Your task to perform on an android device: change your default location settings in chrome Image 0: 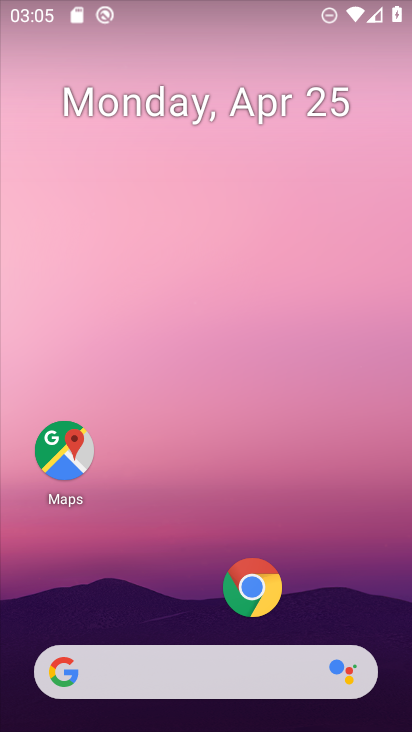
Step 0: drag from (192, 265) to (192, 27)
Your task to perform on an android device: change your default location settings in chrome Image 1: 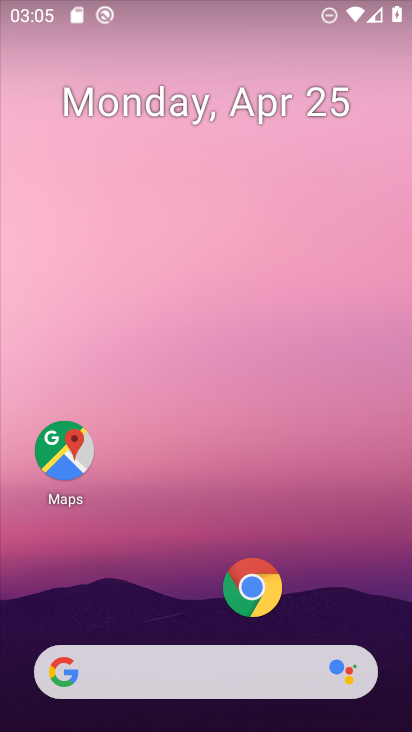
Step 1: click (246, 578)
Your task to perform on an android device: change your default location settings in chrome Image 2: 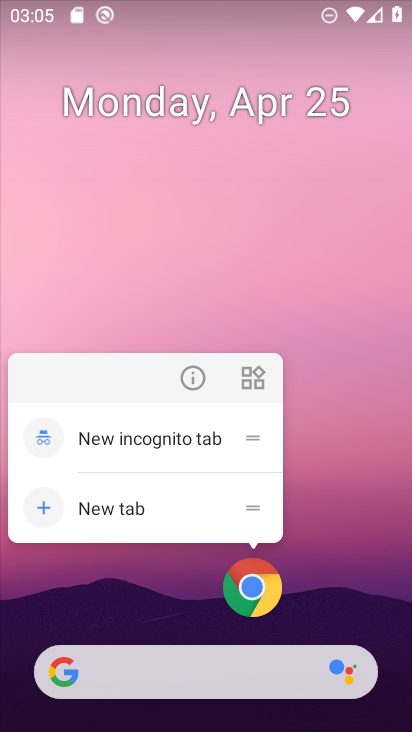
Step 2: drag from (300, 620) to (307, 57)
Your task to perform on an android device: change your default location settings in chrome Image 3: 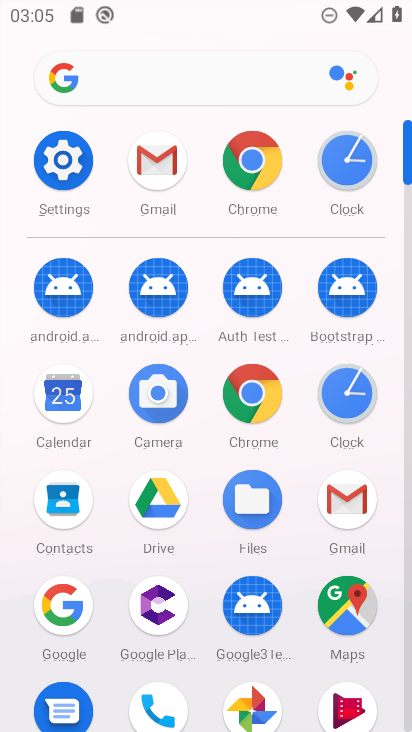
Step 3: click (247, 391)
Your task to perform on an android device: change your default location settings in chrome Image 4: 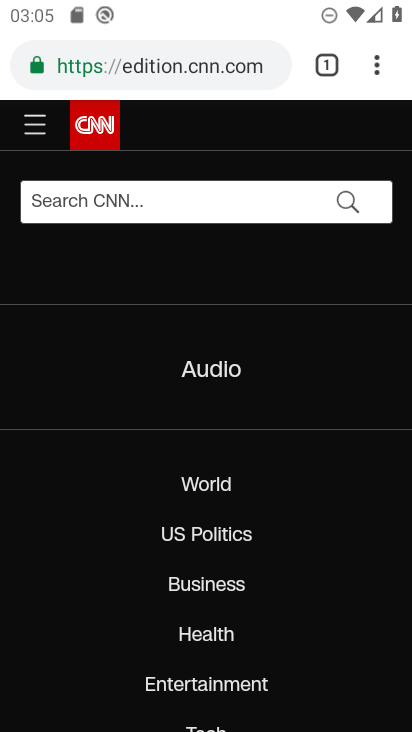
Step 4: click (378, 63)
Your task to perform on an android device: change your default location settings in chrome Image 5: 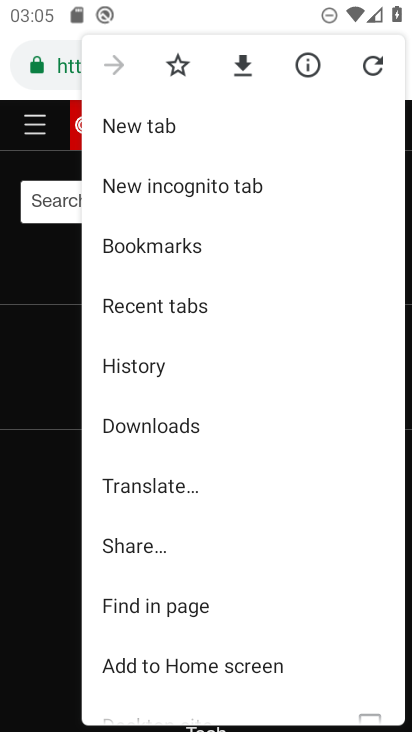
Step 5: drag from (226, 626) to (241, 92)
Your task to perform on an android device: change your default location settings in chrome Image 6: 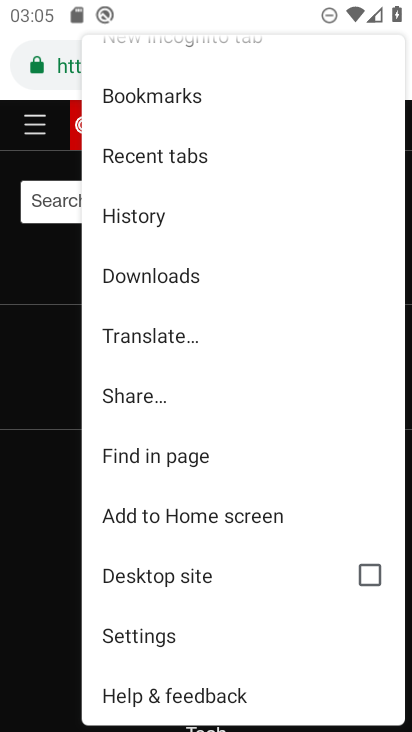
Step 6: click (188, 626)
Your task to perform on an android device: change your default location settings in chrome Image 7: 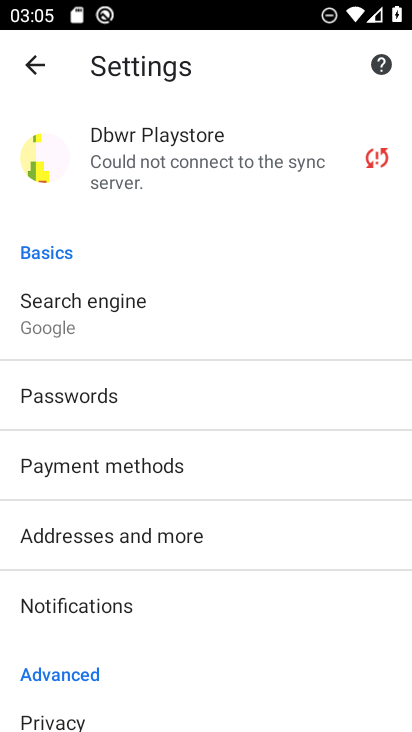
Step 7: drag from (197, 645) to (207, 129)
Your task to perform on an android device: change your default location settings in chrome Image 8: 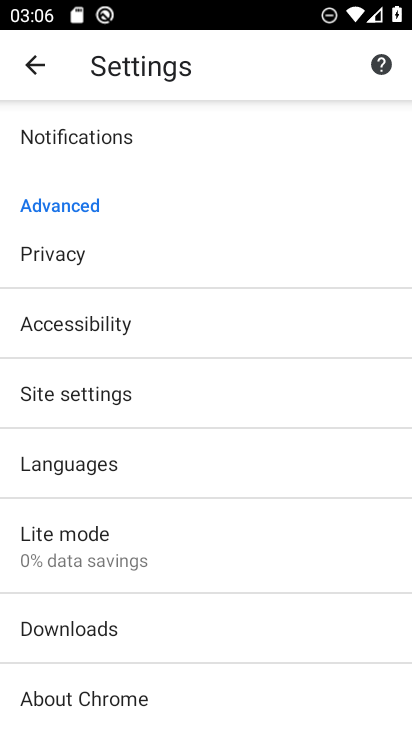
Step 8: click (162, 406)
Your task to perform on an android device: change your default location settings in chrome Image 9: 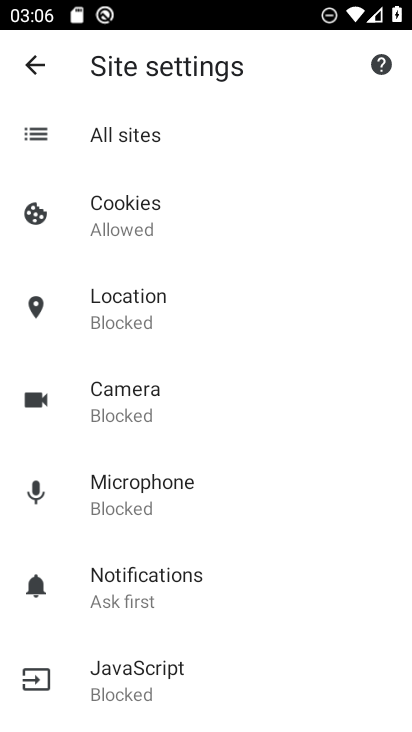
Step 9: click (172, 303)
Your task to perform on an android device: change your default location settings in chrome Image 10: 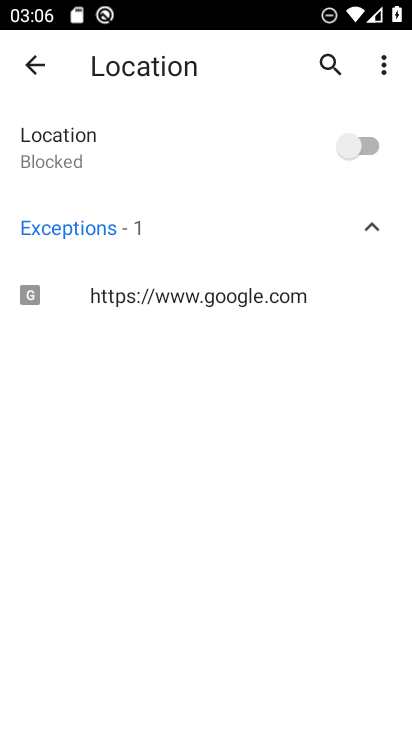
Step 10: click (353, 144)
Your task to perform on an android device: change your default location settings in chrome Image 11: 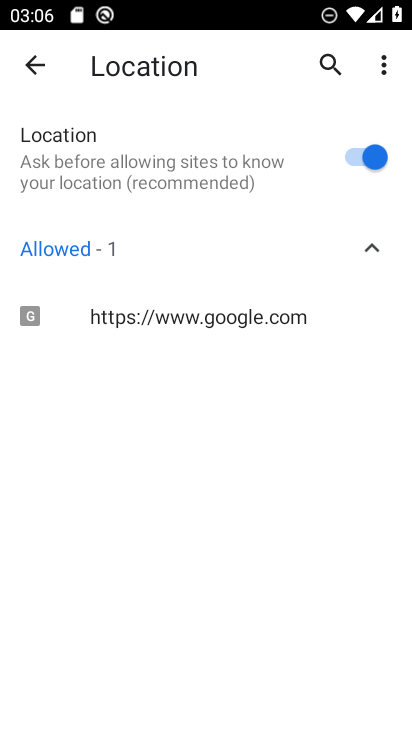
Step 11: task complete